Your task to perform on an android device: change alarm snooze length Image 0: 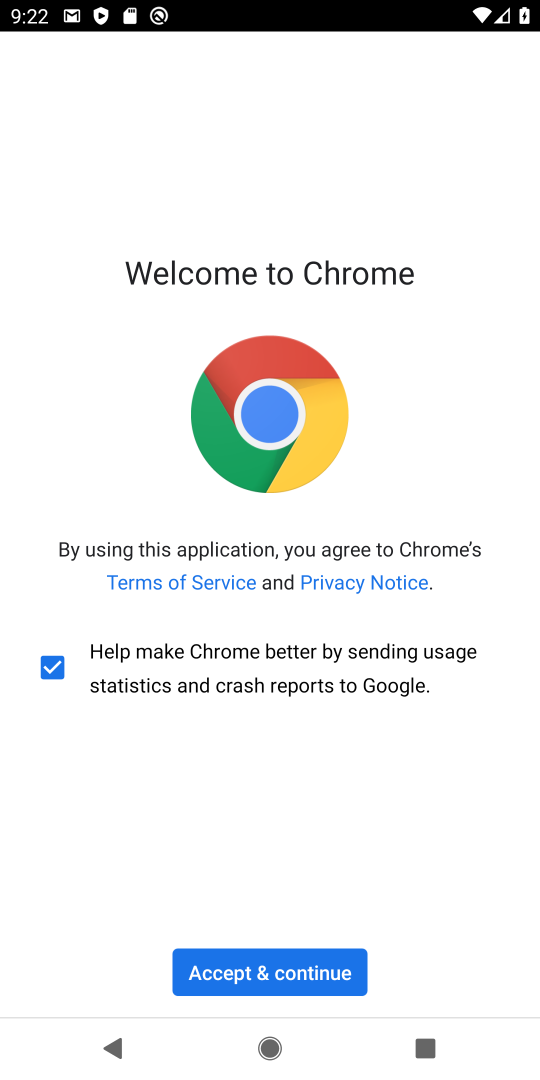
Step 0: press home button
Your task to perform on an android device: change alarm snooze length Image 1: 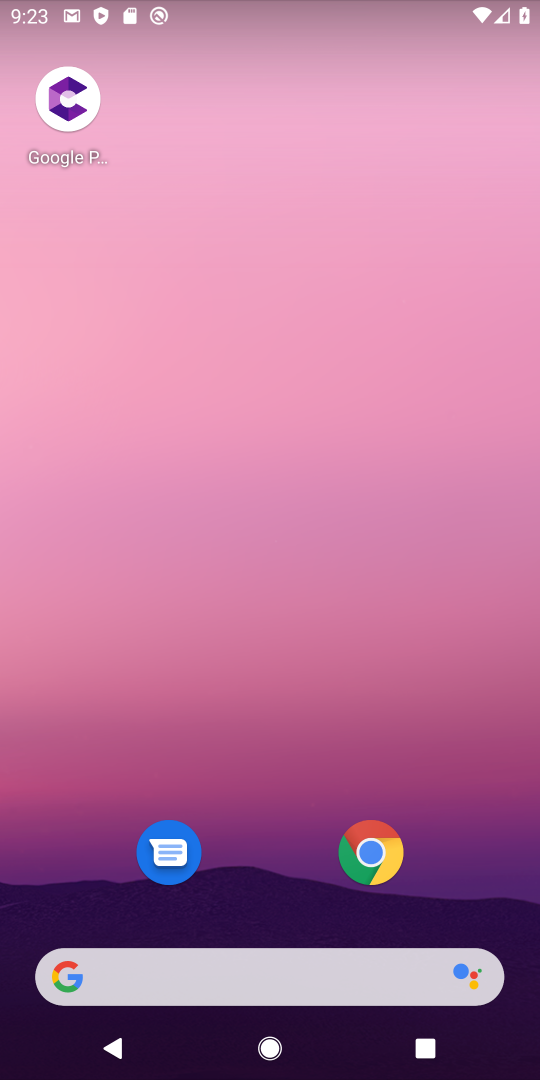
Step 1: drag from (279, 837) to (301, 324)
Your task to perform on an android device: change alarm snooze length Image 2: 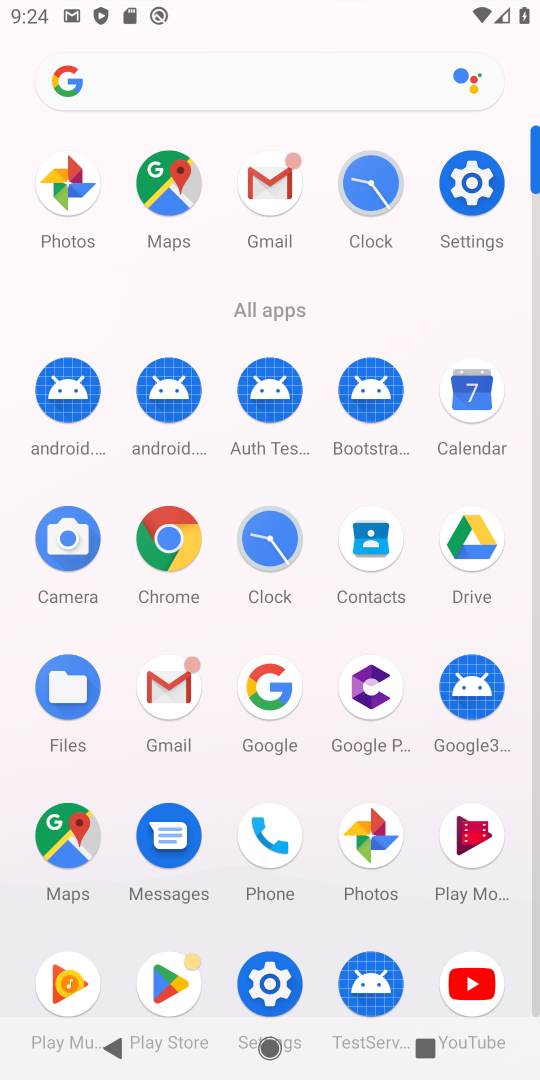
Step 2: click (274, 593)
Your task to perform on an android device: change alarm snooze length Image 3: 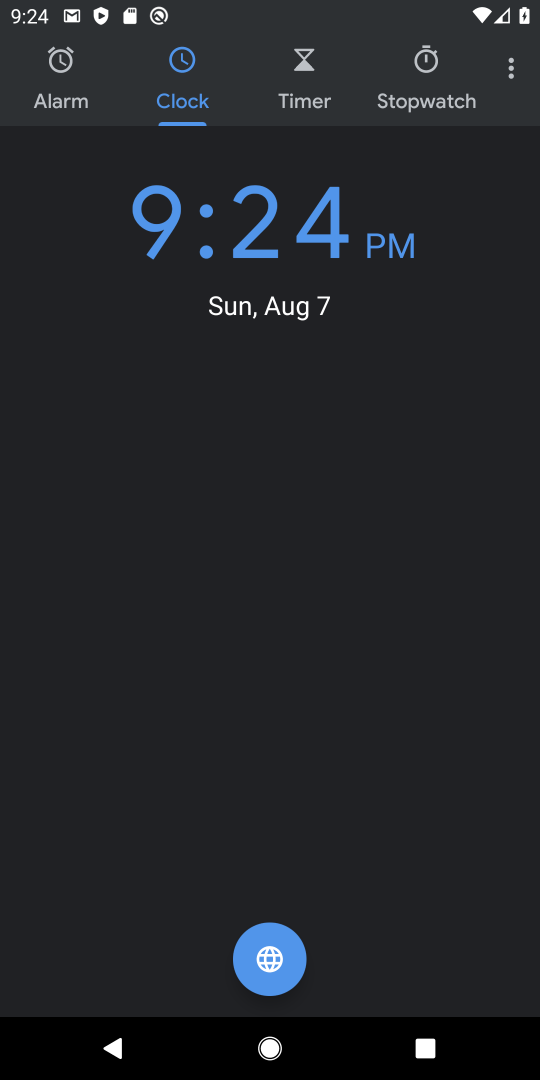
Step 3: click (68, 89)
Your task to perform on an android device: change alarm snooze length Image 4: 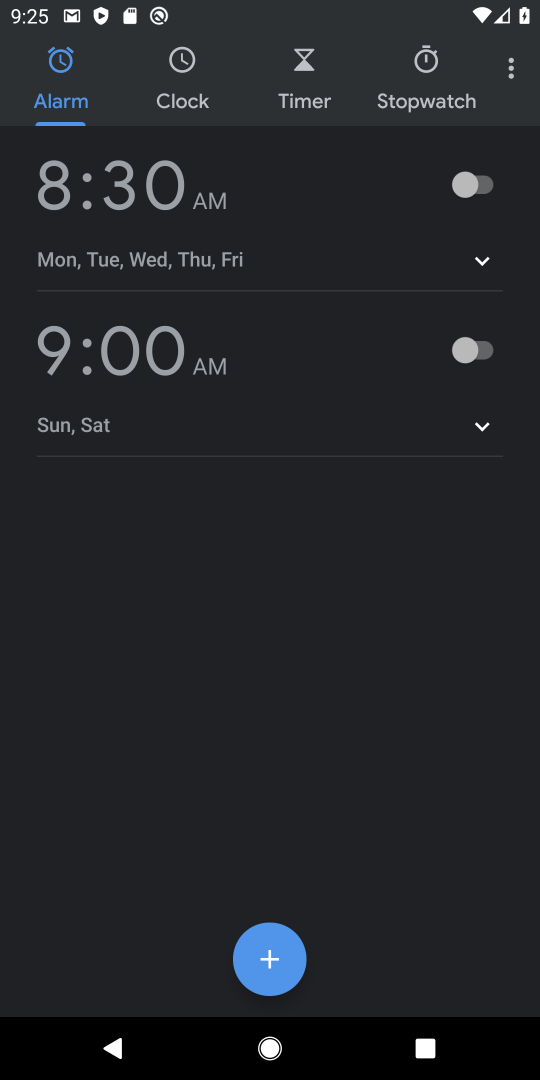
Step 4: click (517, 64)
Your task to perform on an android device: change alarm snooze length Image 5: 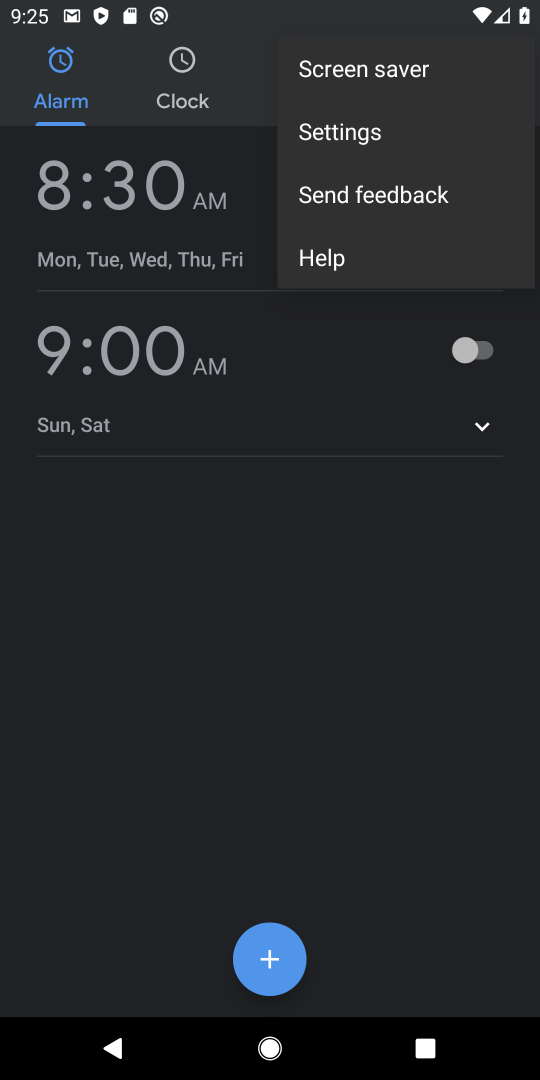
Step 5: click (349, 114)
Your task to perform on an android device: change alarm snooze length Image 6: 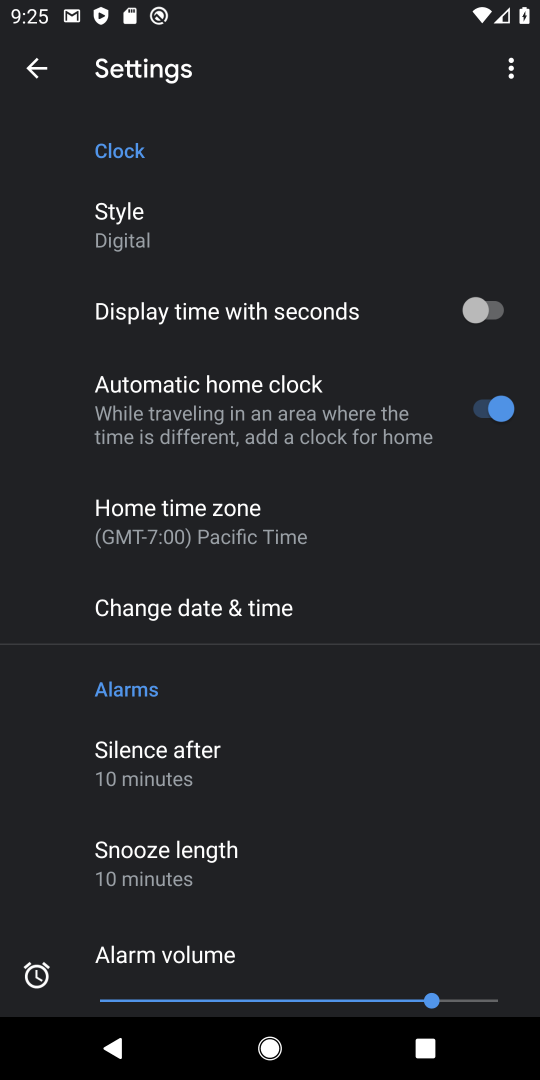
Step 6: click (163, 856)
Your task to perform on an android device: change alarm snooze length Image 7: 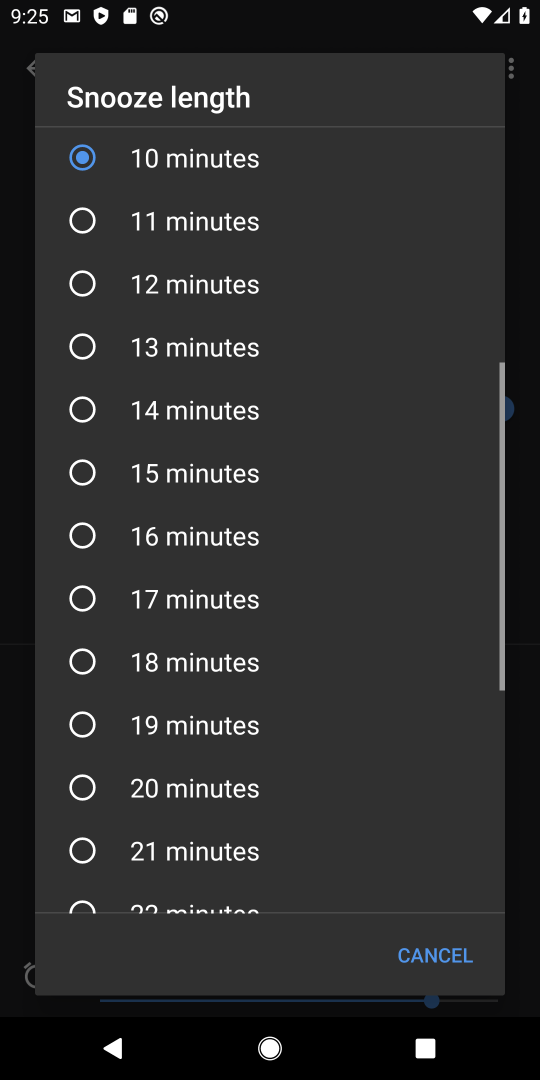
Step 7: click (250, 665)
Your task to perform on an android device: change alarm snooze length Image 8: 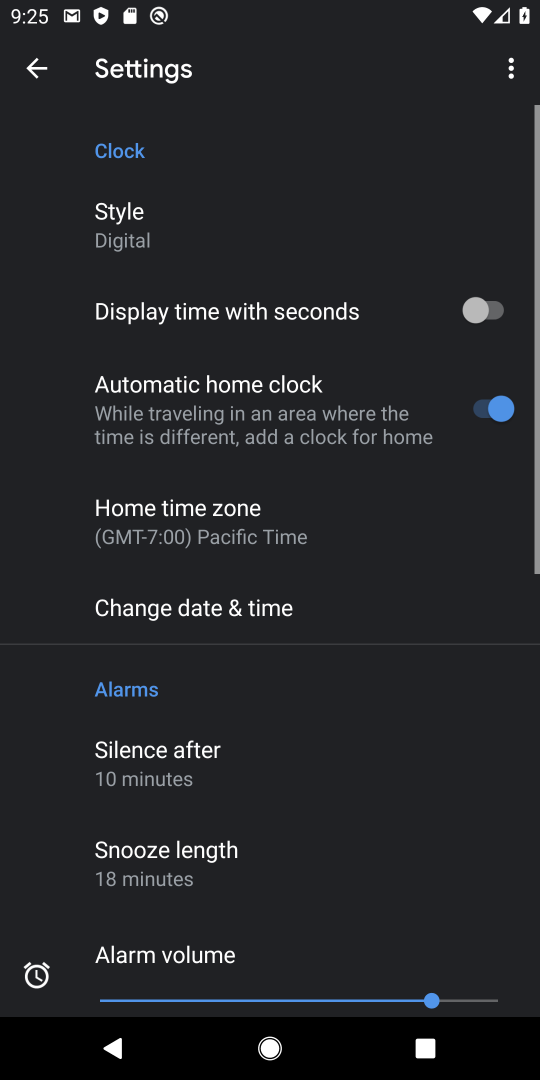
Step 8: task complete